Your task to perform on an android device: Search for vegetarian restaurants on Maps Image 0: 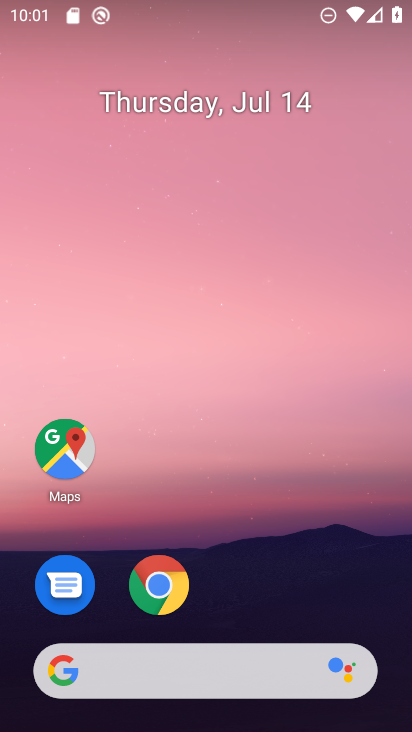
Step 0: click (51, 438)
Your task to perform on an android device: Search for vegetarian restaurants on Maps Image 1: 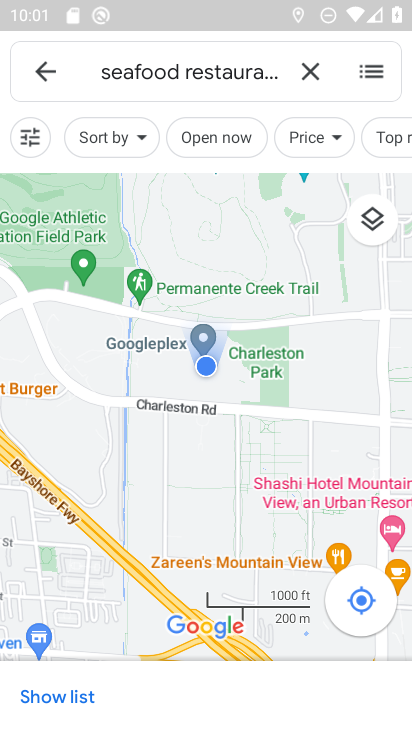
Step 1: click (315, 69)
Your task to perform on an android device: Search for vegetarian restaurants on Maps Image 2: 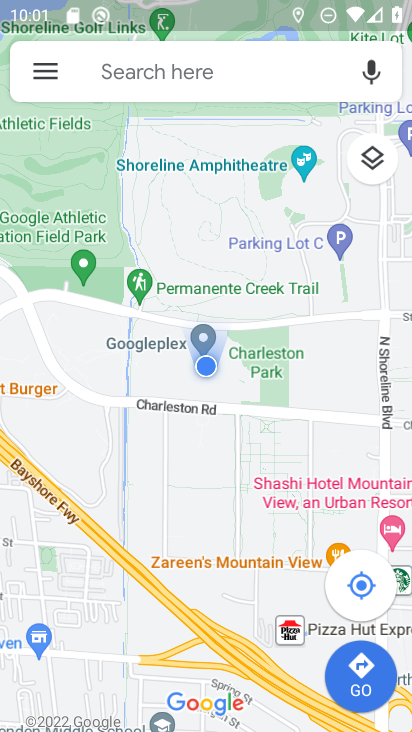
Step 2: click (256, 93)
Your task to perform on an android device: Search for vegetarian restaurants on Maps Image 3: 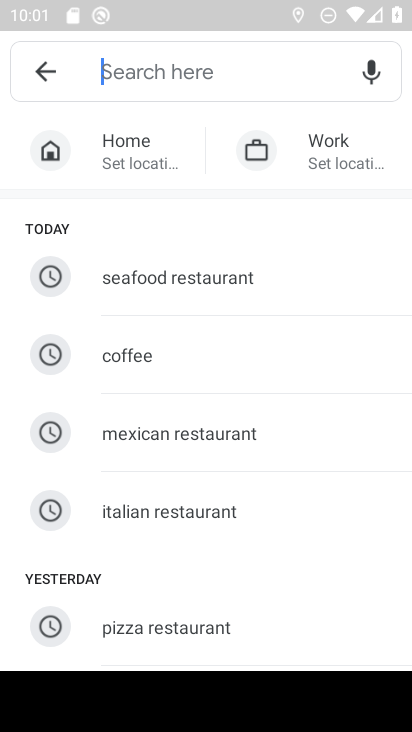
Step 3: drag from (218, 546) to (135, 20)
Your task to perform on an android device: Search for vegetarian restaurants on Maps Image 4: 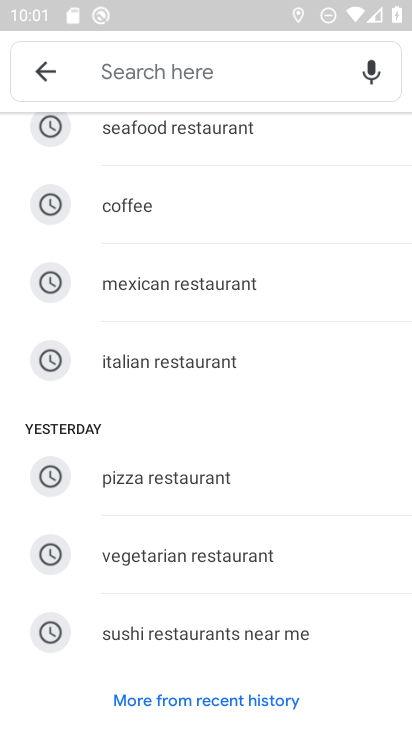
Step 4: click (138, 556)
Your task to perform on an android device: Search for vegetarian restaurants on Maps Image 5: 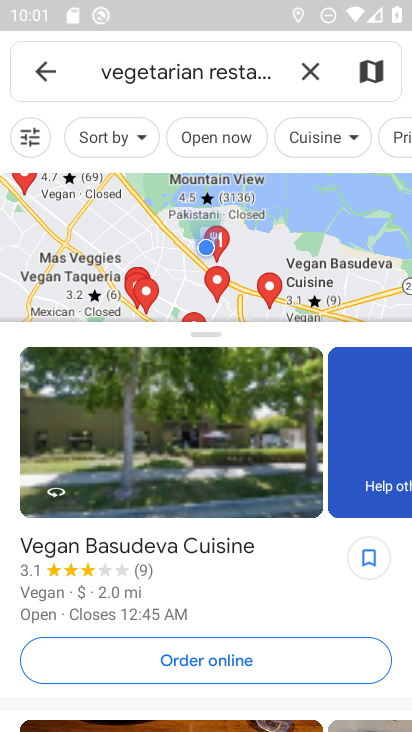
Step 5: task complete